Your task to perform on an android device: turn off priority inbox in the gmail app Image 0: 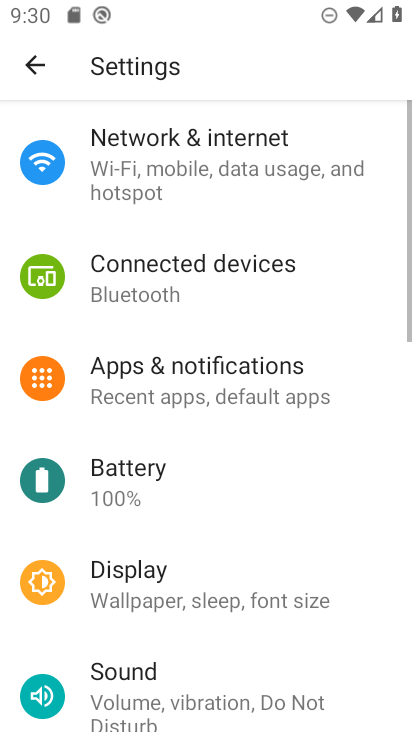
Step 0: press home button
Your task to perform on an android device: turn off priority inbox in the gmail app Image 1: 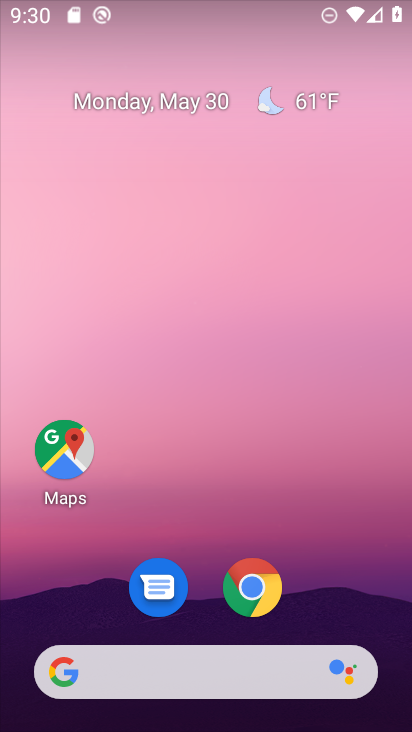
Step 1: drag from (209, 628) to (162, 20)
Your task to perform on an android device: turn off priority inbox in the gmail app Image 2: 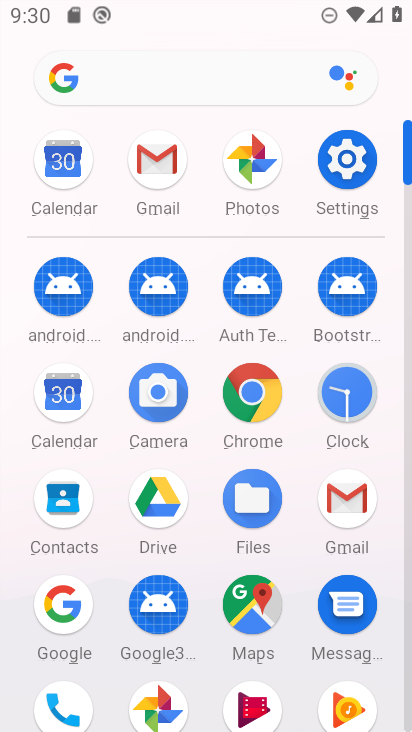
Step 2: click (348, 504)
Your task to perform on an android device: turn off priority inbox in the gmail app Image 3: 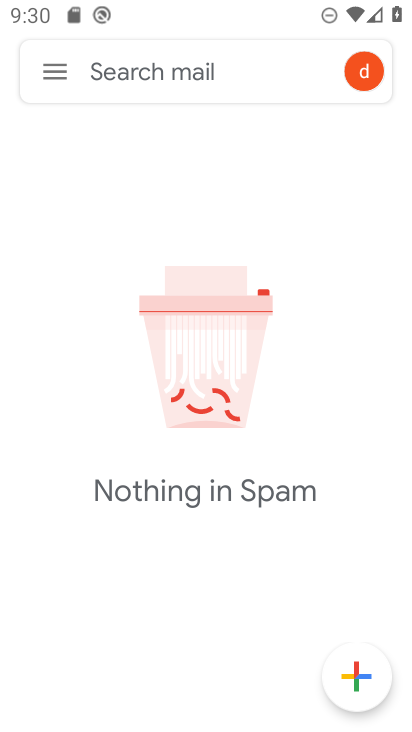
Step 3: click (42, 90)
Your task to perform on an android device: turn off priority inbox in the gmail app Image 4: 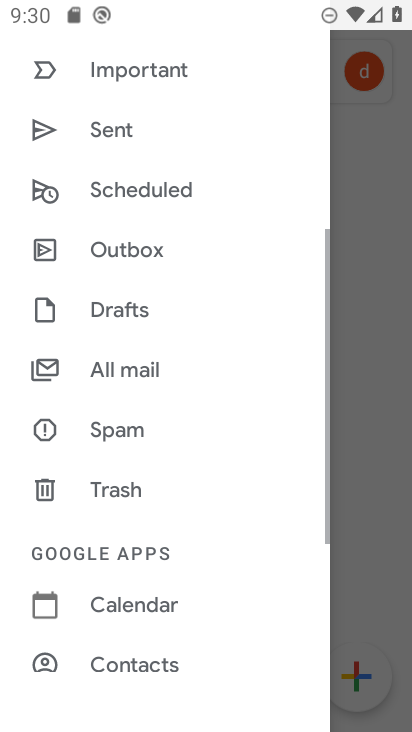
Step 4: drag from (144, 568) to (142, 236)
Your task to perform on an android device: turn off priority inbox in the gmail app Image 5: 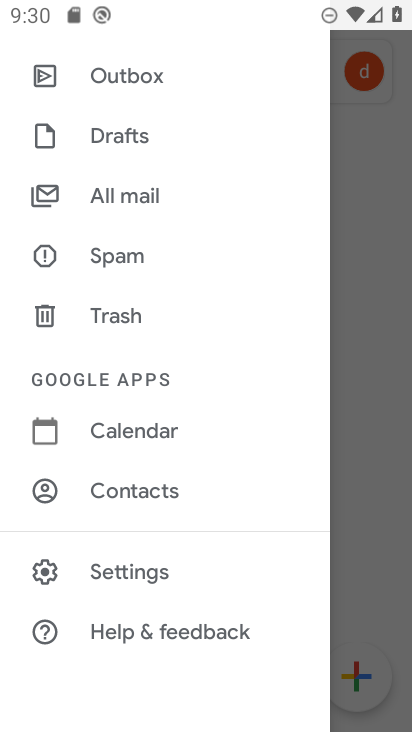
Step 5: click (98, 546)
Your task to perform on an android device: turn off priority inbox in the gmail app Image 6: 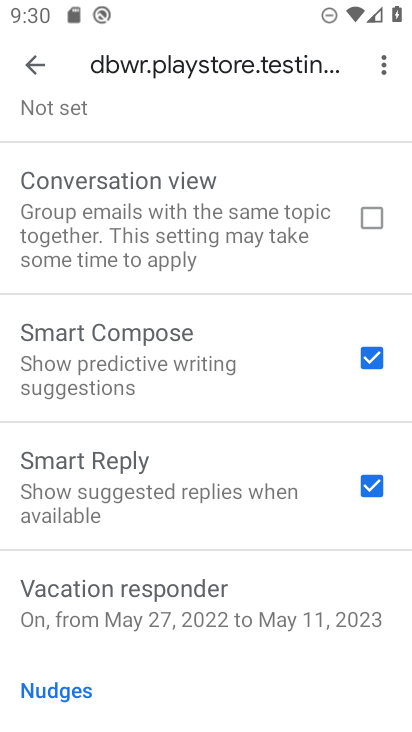
Step 6: drag from (113, 310) to (167, 703)
Your task to perform on an android device: turn off priority inbox in the gmail app Image 7: 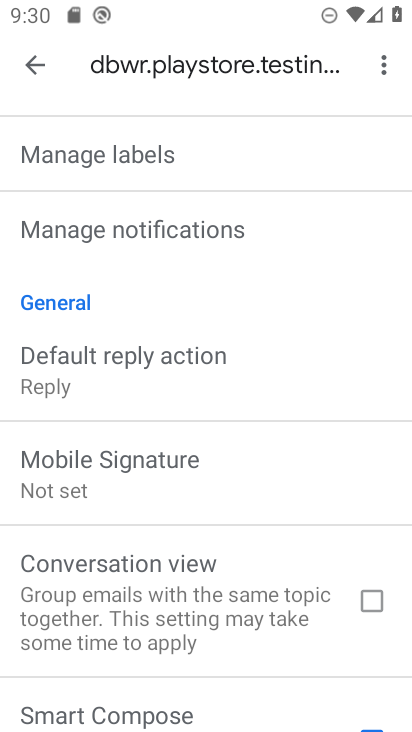
Step 7: drag from (187, 222) to (175, 726)
Your task to perform on an android device: turn off priority inbox in the gmail app Image 8: 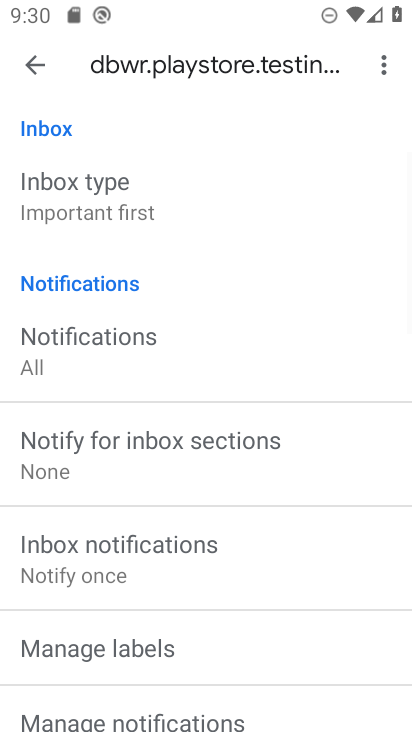
Step 8: drag from (109, 182) to (127, 721)
Your task to perform on an android device: turn off priority inbox in the gmail app Image 9: 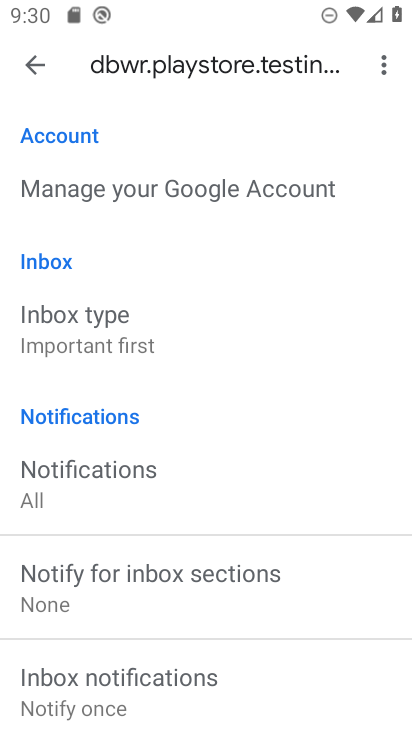
Step 9: click (93, 337)
Your task to perform on an android device: turn off priority inbox in the gmail app Image 10: 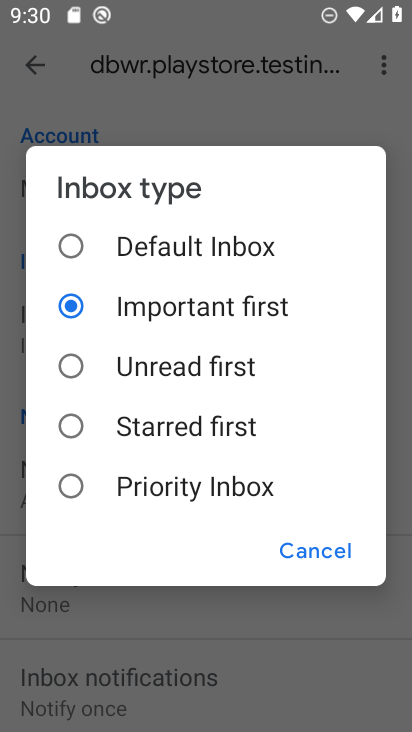
Step 10: click (113, 248)
Your task to perform on an android device: turn off priority inbox in the gmail app Image 11: 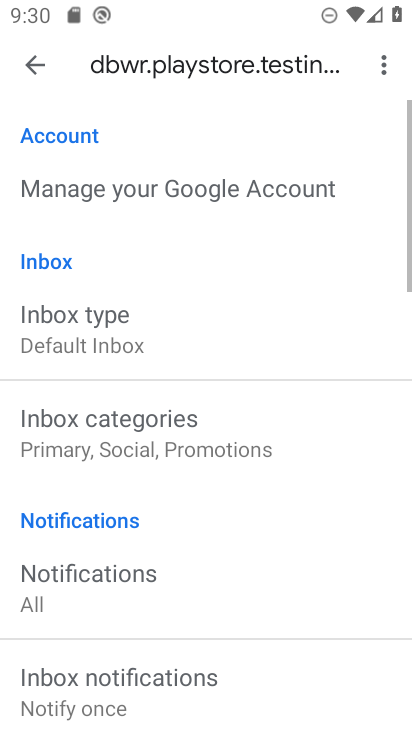
Step 11: task complete